Your task to perform on an android device: toggle priority inbox in the gmail app Image 0: 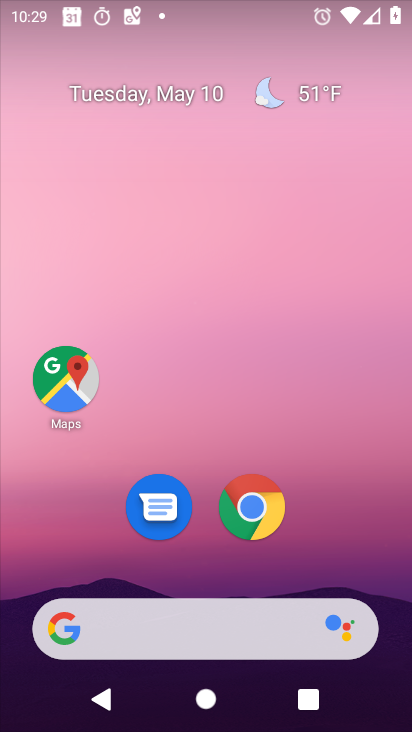
Step 0: drag from (200, 574) to (248, 72)
Your task to perform on an android device: toggle priority inbox in the gmail app Image 1: 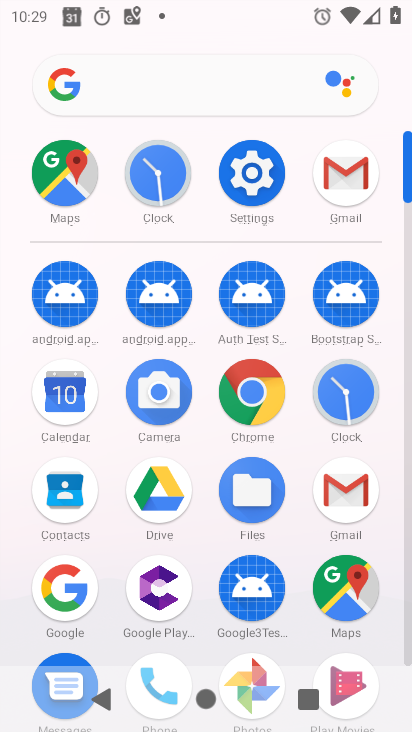
Step 1: click (337, 156)
Your task to perform on an android device: toggle priority inbox in the gmail app Image 2: 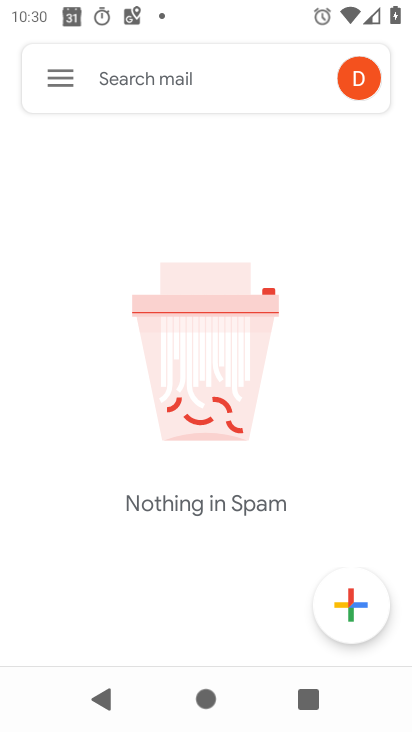
Step 2: click (70, 91)
Your task to perform on an android device: toggle priority inbox in the gmail app Image 3: 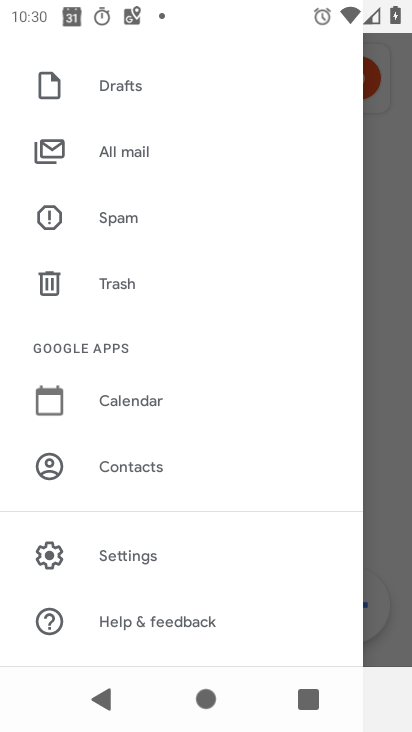
Step 3: click (94, 543)
Your task to perform on an android device: toggle priority inbox in the gmail app Image 4: 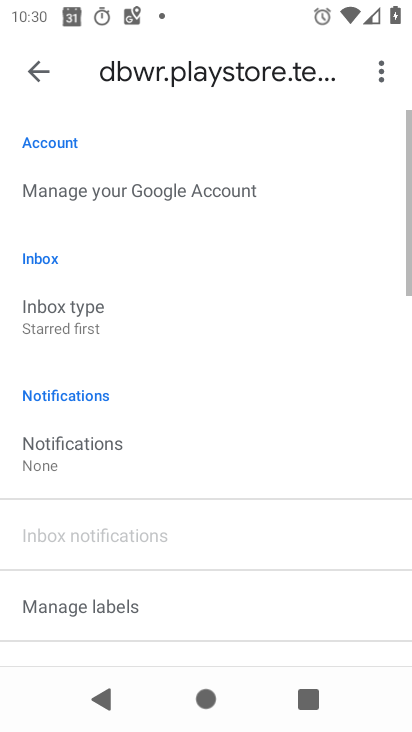
Step 4: click (221, 221)
Your task to perform on an android device: toggle priority inbox in the gmail app Image 5: 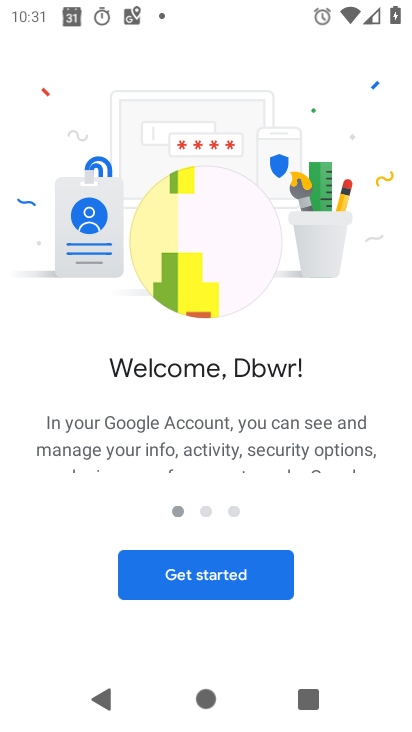
Step 5: press home button
Your task to perform on an android device: toggle priority inbox in the gmail app Image 6: 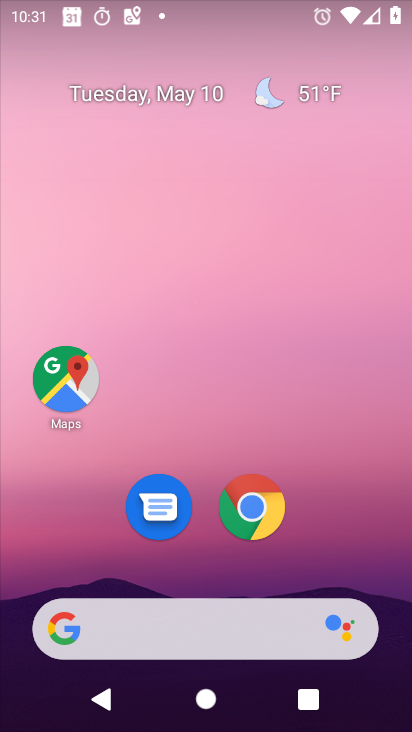
Step 6: drag from (209, 553) to (285, 0)
Your task to perform on an android device: toggle priority inbox in the gmail app Image 7: 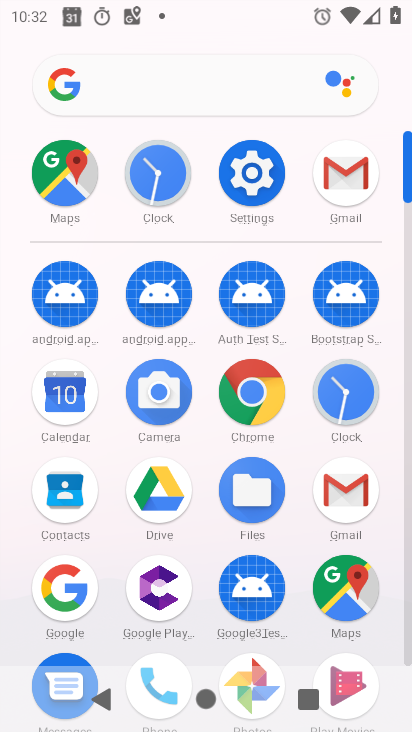
Step 7: click (369, 179)
Your task to perform on an android device: toggle priority inbox in the gmail app Image 8: 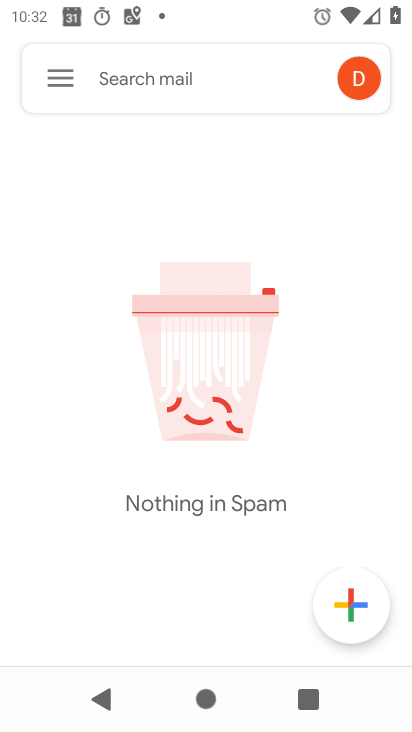
Step 8: click (63, 87)
Your task to perform on an android device: toggle priority inbox in the gmail app Image 9: 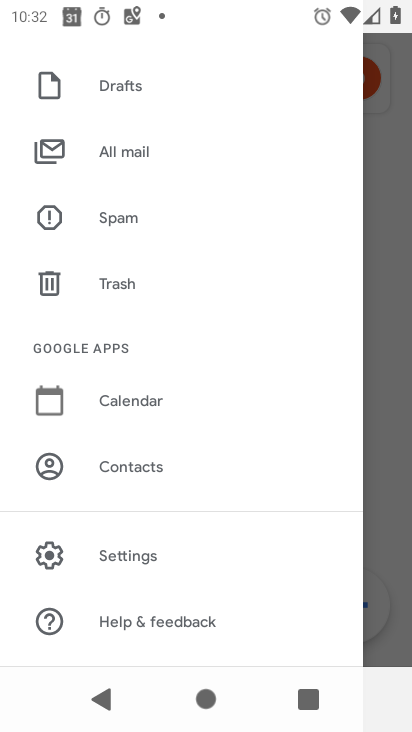
Step 9: click (120, 570)
Your task to perform on an android device: toggle priority inbox in the gmail app Image 10: 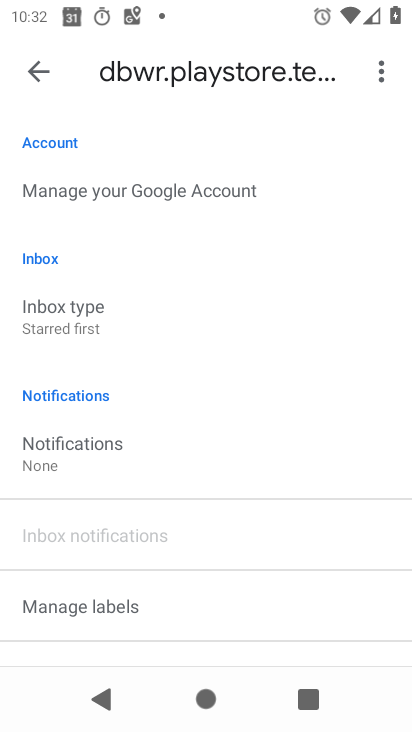
Step 10: click (129, 323)
Your task to perform on an android device: toggle priority inbox in the gmail app Image 11: 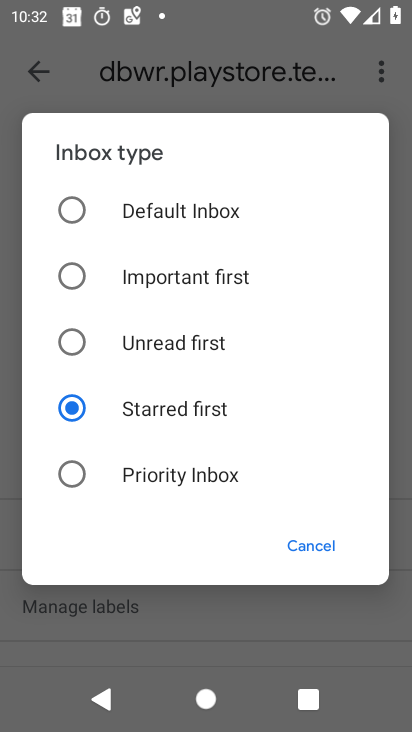
Step 11: click (207, 261)
Your task to perform on an android device: toggle priority inbox in the gmail app Image 12: 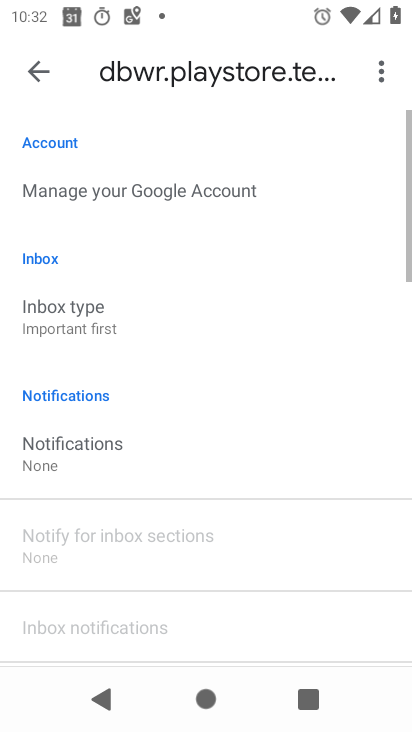
Step 12: task complete